Your task to perform on an android device: Go to eBay Image 0: 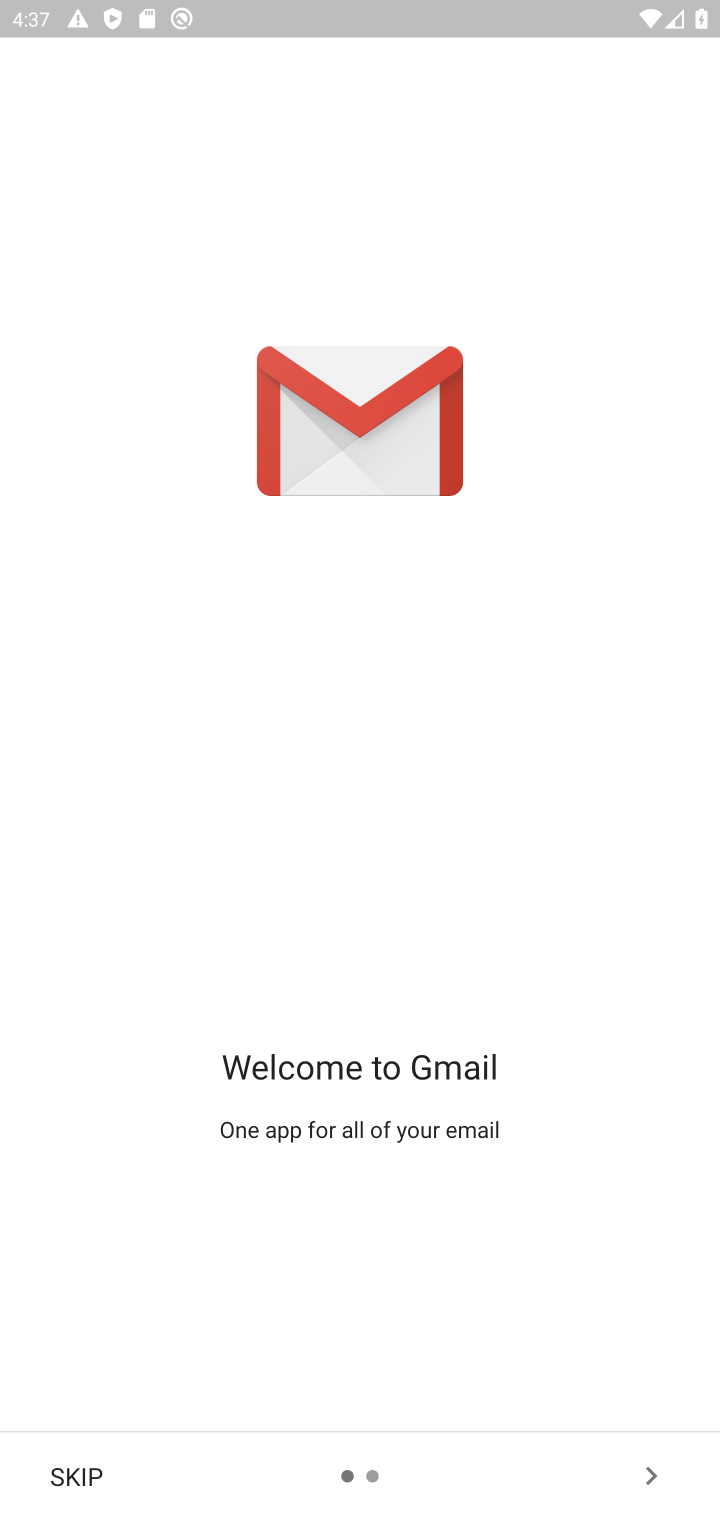
Step 0: press home button
Your task to perform on an android device: Go to eBay Image 1: 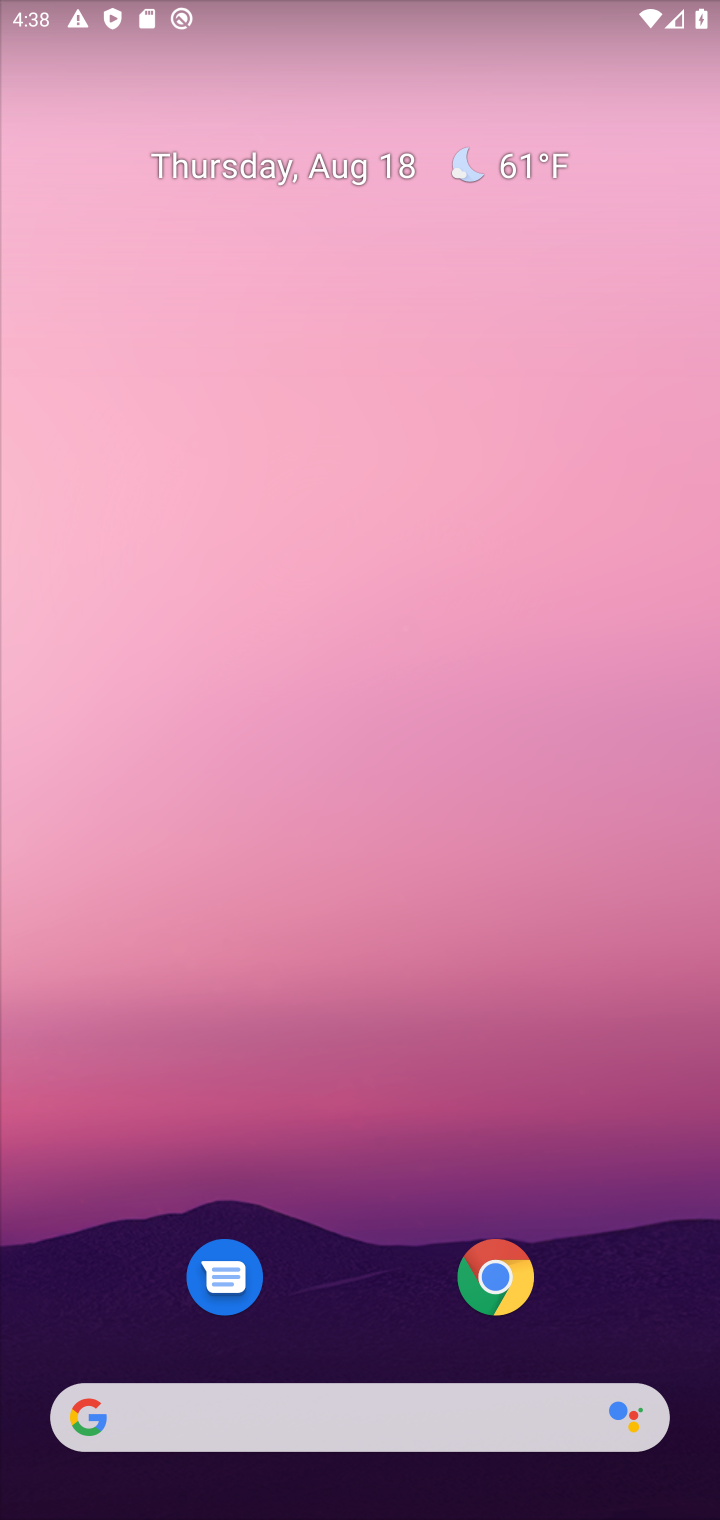
Step 1: click (491, 1262)
Your task to perform on an android device: Go to eBay Image 2: 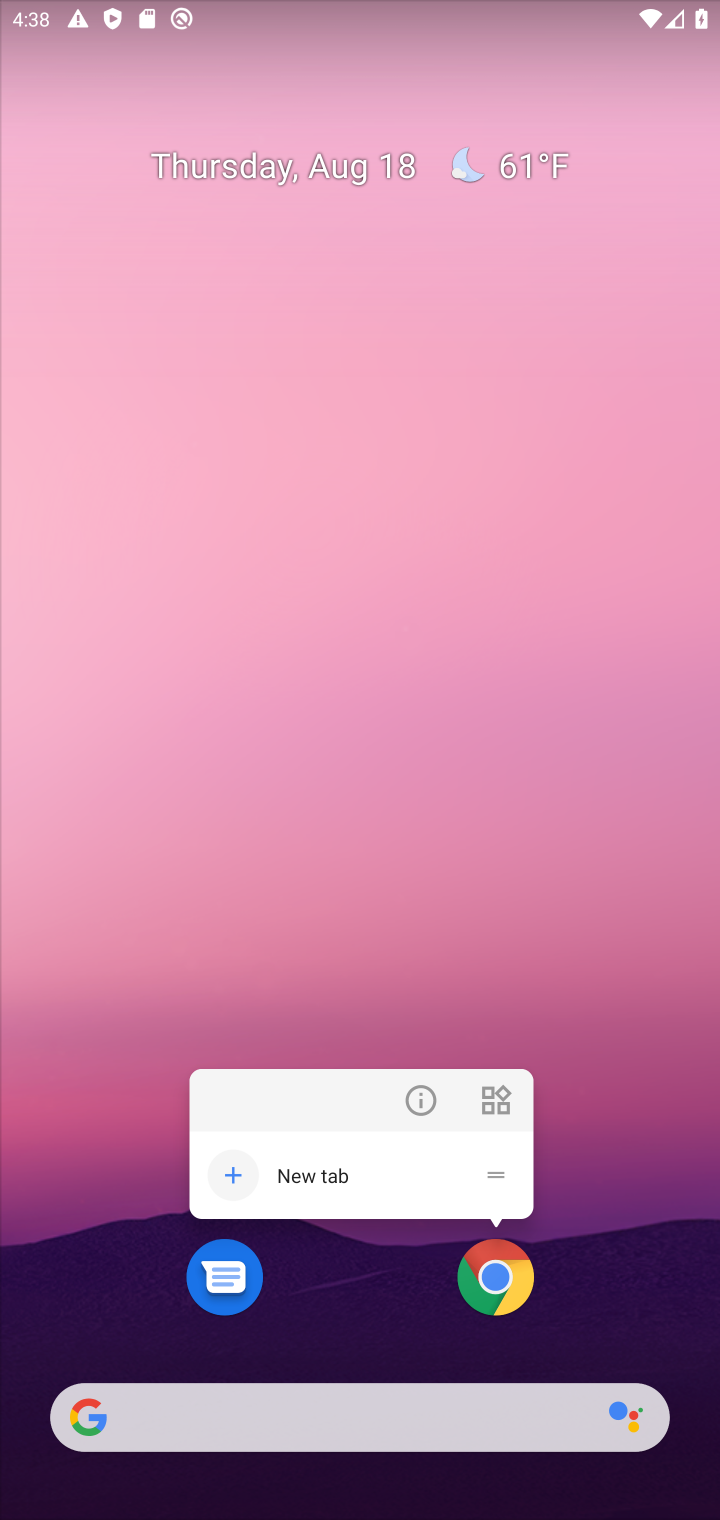
Step 2: click (383, 1168)
Your task to perform on an android device: Go to eBay Image 3: 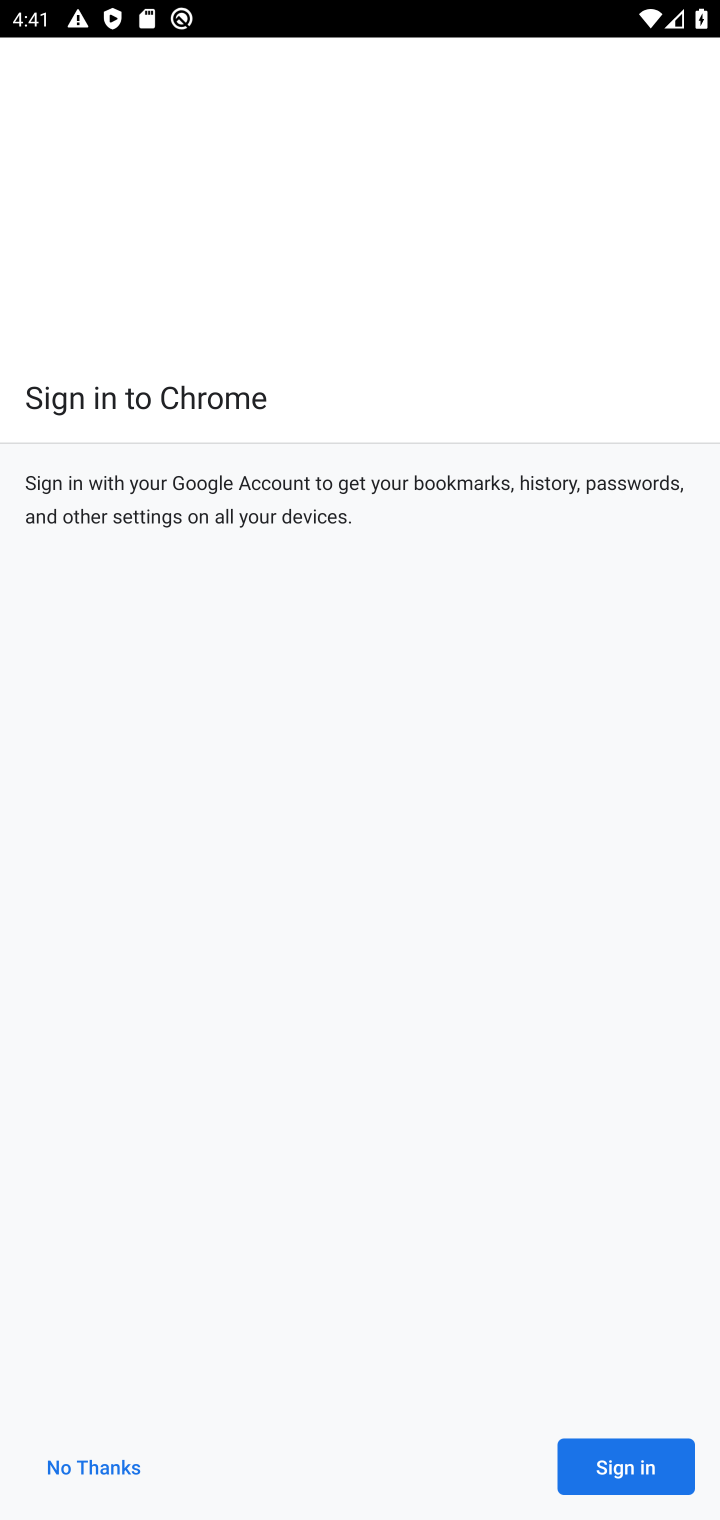
Step 3: task complete